Your task to perform on an android device: Open network settings Image 0: 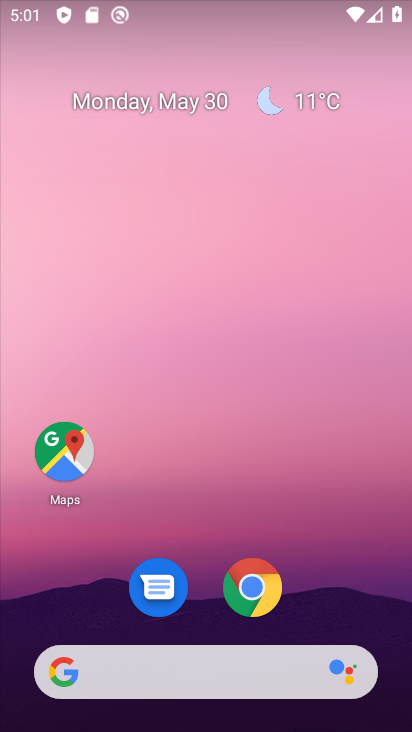
Step 0: drag from (306, 521) to (246, 29)
Your task to perform on an android device: Open network settings Image 1: 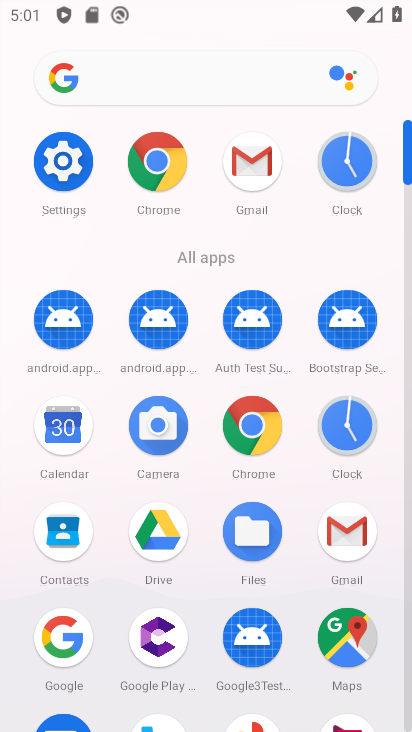
Step 1: drag from (26, 536) to (20, 256)
Your task to perform on an android device: Open network settings Image 2: 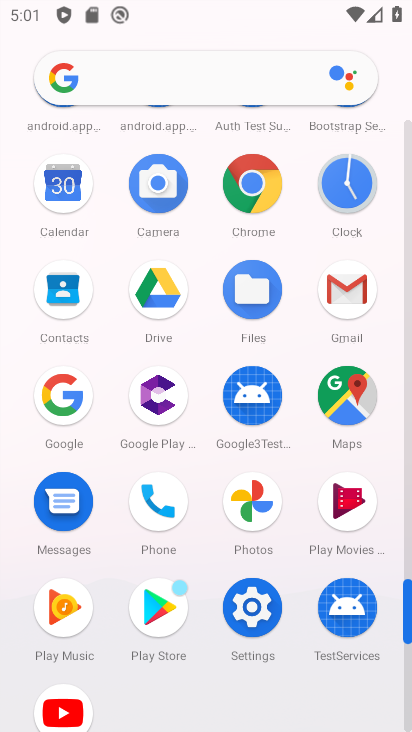
Step 2: click (249, 605)
Your task to perform on an android device: Open network settings Image 3: 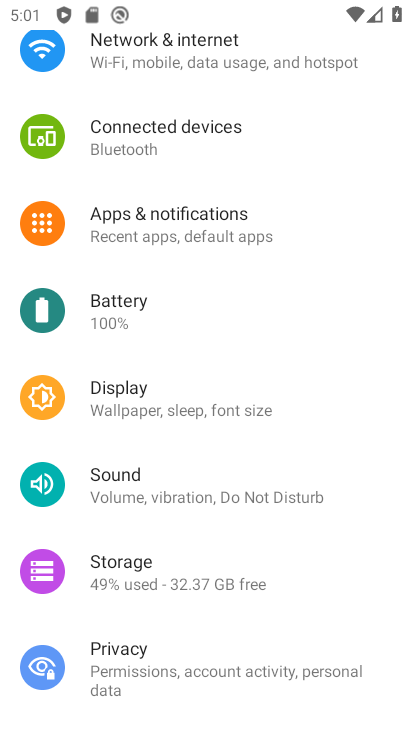
Step 3: drag from (260, 161) to (263, 566)
Your task to perform on an android device: Open network settings Image 4: 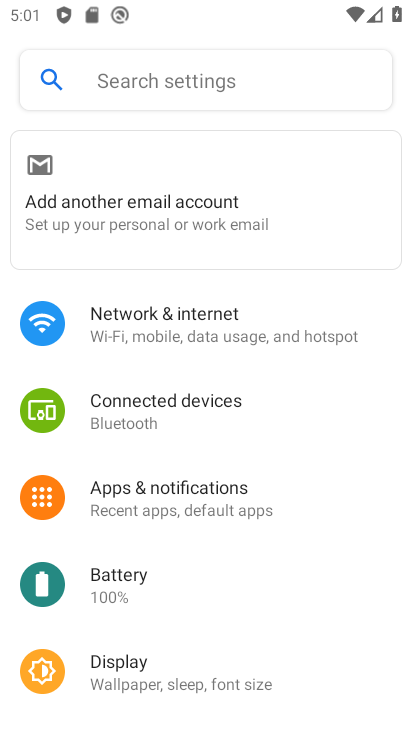
Step 4: click (209, 315)
Your task to perform on an android device: Open network settings Image 5: 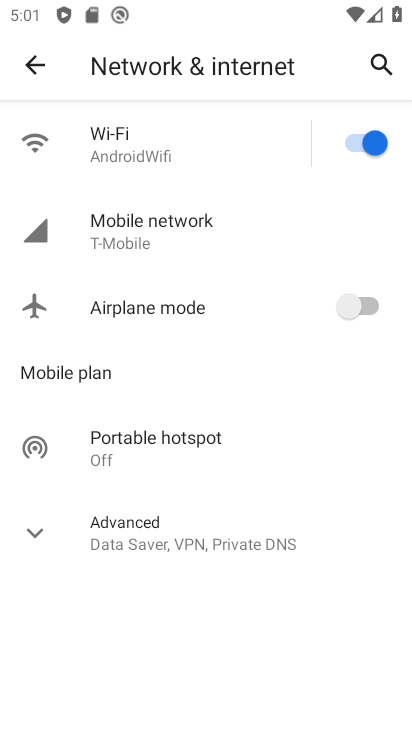
Step 5: click (51, 533)
Your task to perform on an android device: Open network settings Image 6: 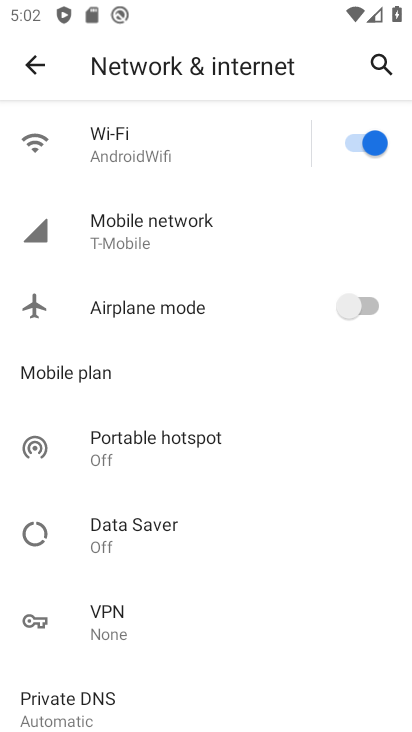
Step 6: task complete